Your task to perform on an android device: open device folders in google photos Image 0: 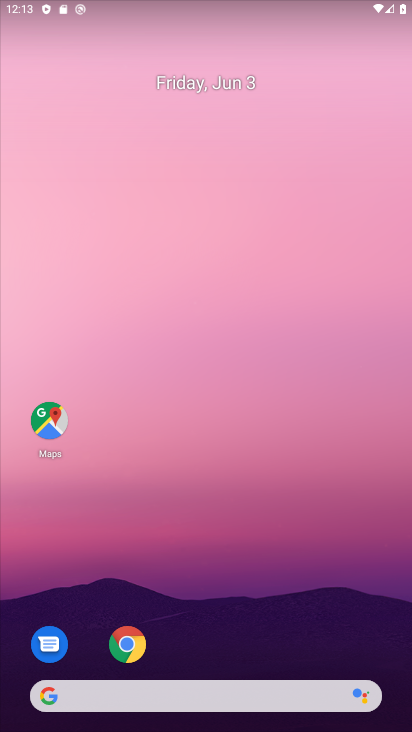
Step 0: drag from (300, 584) to (299, 37)
Your task to perform on an android device: open device folders in google photos Image 1: 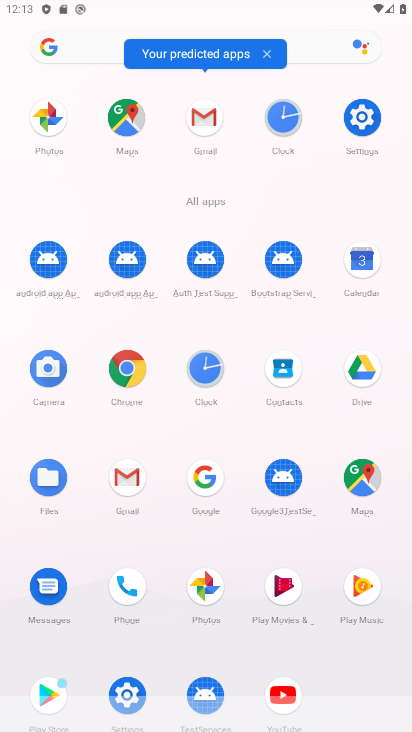
Step 1: click (196, 583)
Your task to perform on an android device: open device folders in google photos Image 2: 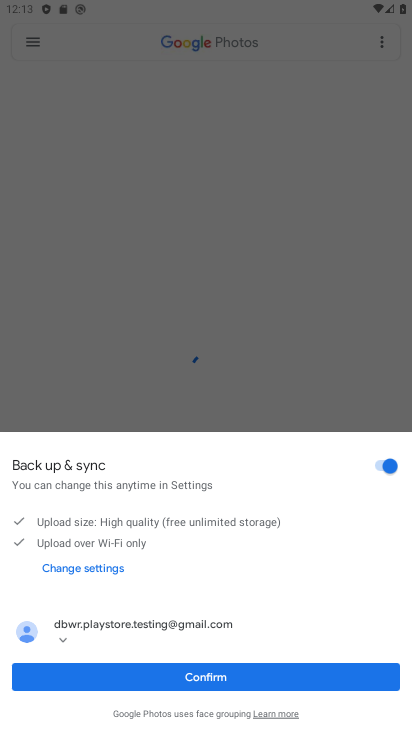
Step 2: click (114, 673)
Your task to perform on an android device: open device folders in google photos Image 3: 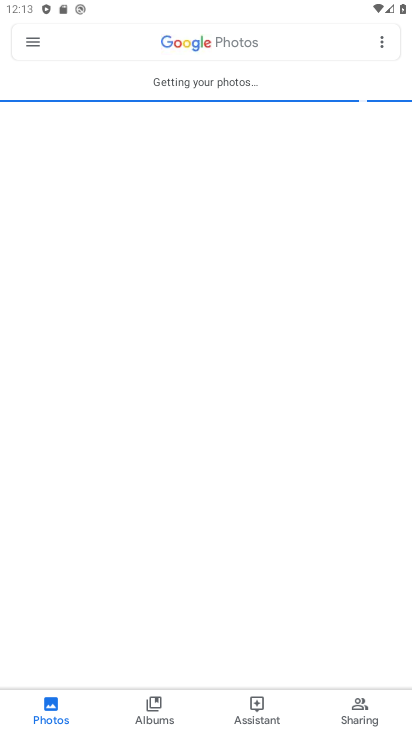
Step 3: click (33, 42)
Your task to perform on an android device: open device folders in google photos Image 4: 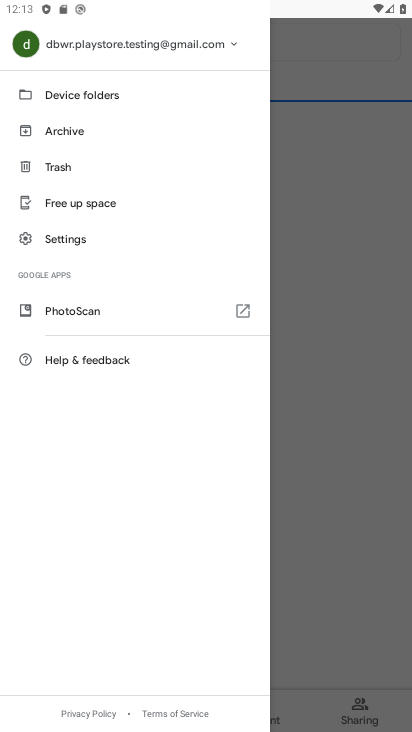
Step 4: click (133, 99)
Your task to perform on an android device: open device folders in google photos Image 5: 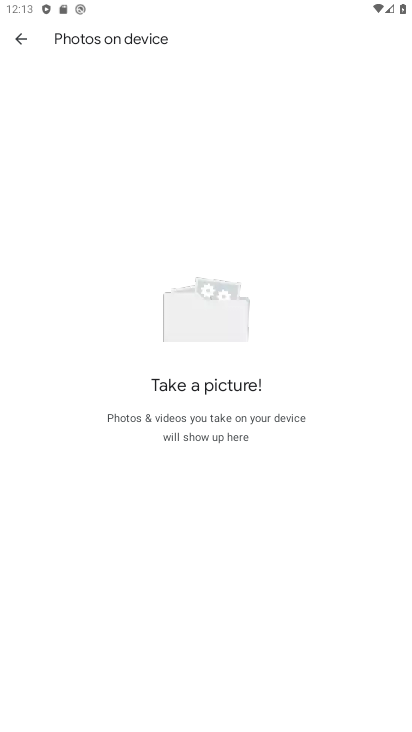
Step 5: task complete